Your task to perform on an android device: Open calendar and show me the second week of next month Image 0: 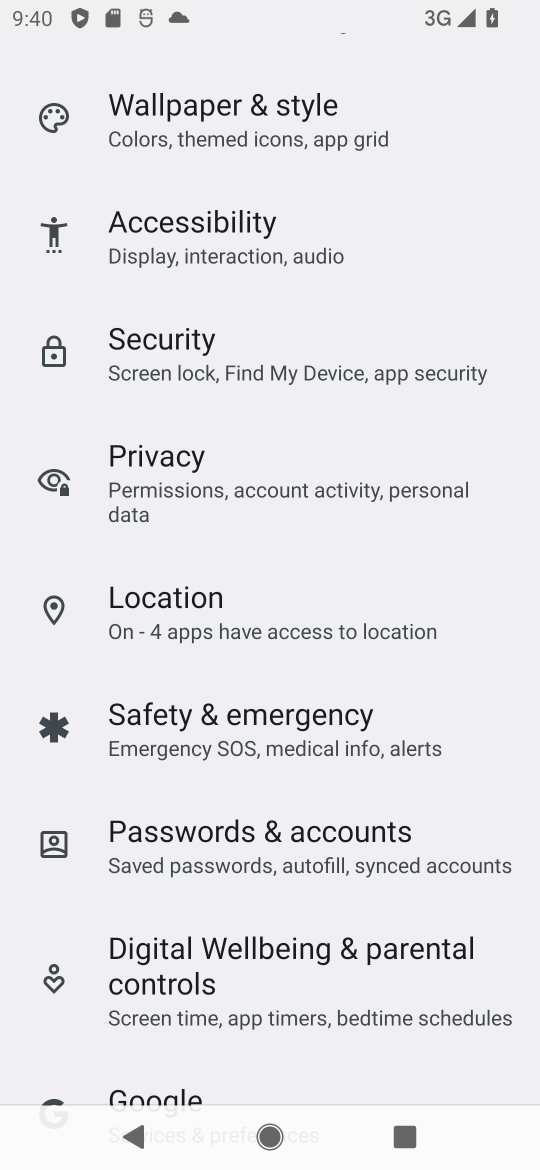
Step 0: press home button
Your task to perform on an android device: Open calendar and show me the second week of next month Image 1: 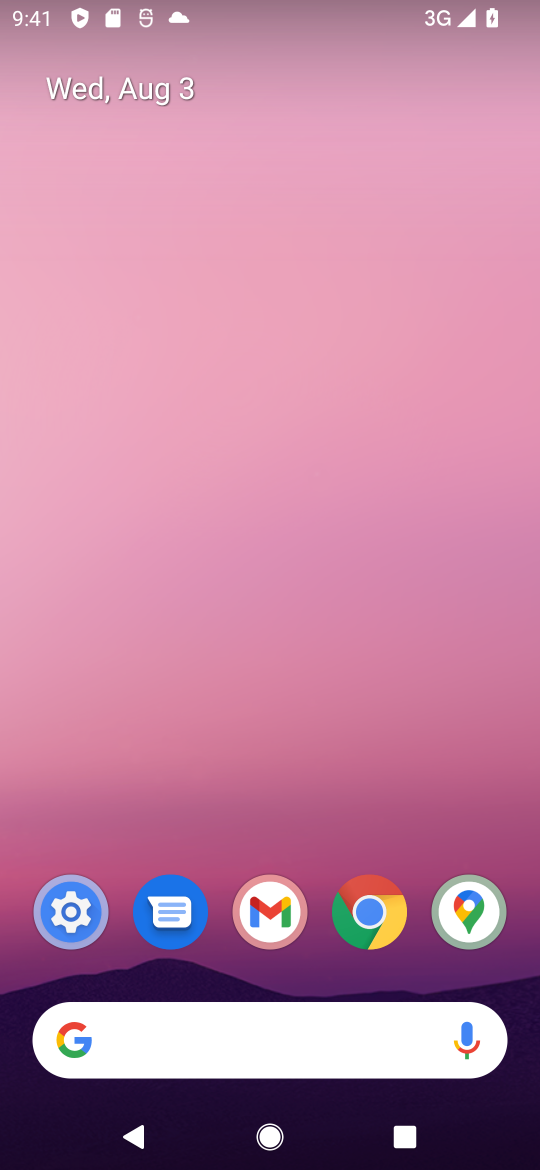
Step 1: drag from (281, 720) to (68, 32)
Your task to perform on an android device: Open calendar and show me the second week of next month Image 2: 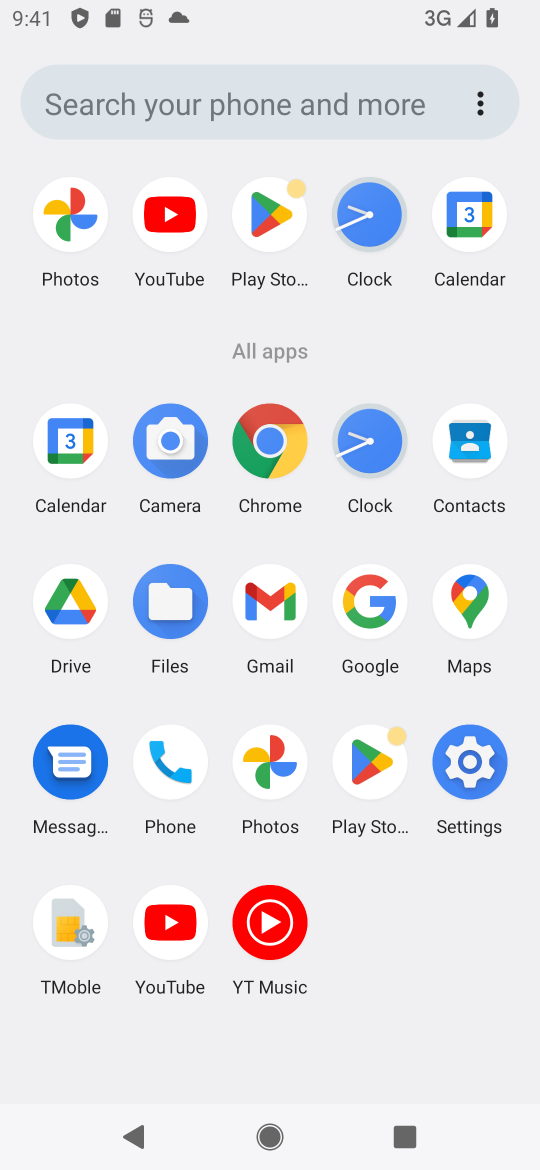
Step 2: click (450, 219)
Your task to perform on an android device: Open calendar and show me the second week of next month Image 3: 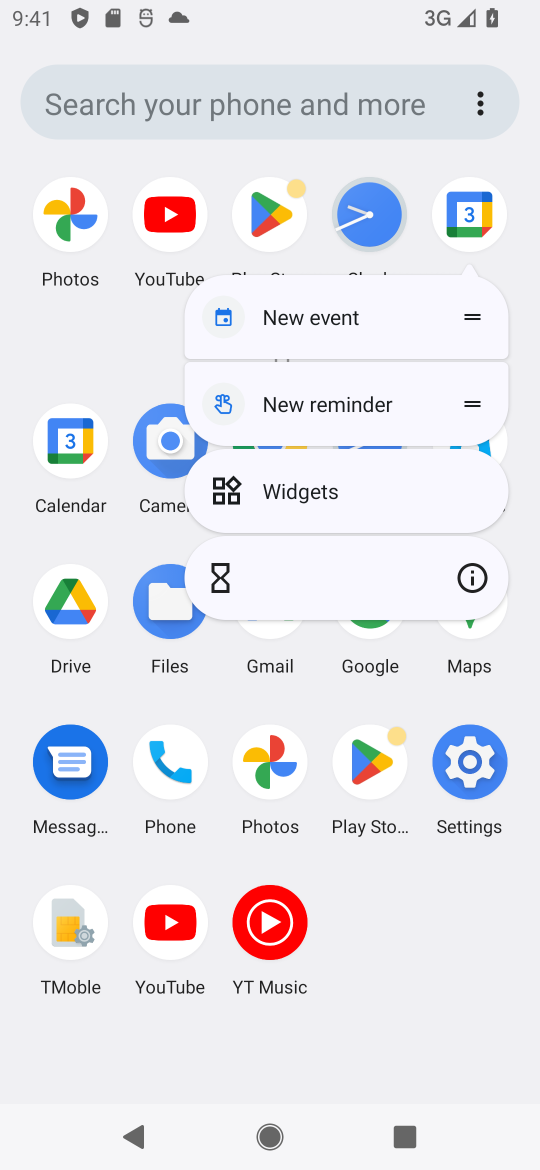
Step 3: click (477, 220)
Your task to perform on an android device: Open calendar and show me the second week of next month Image 4: 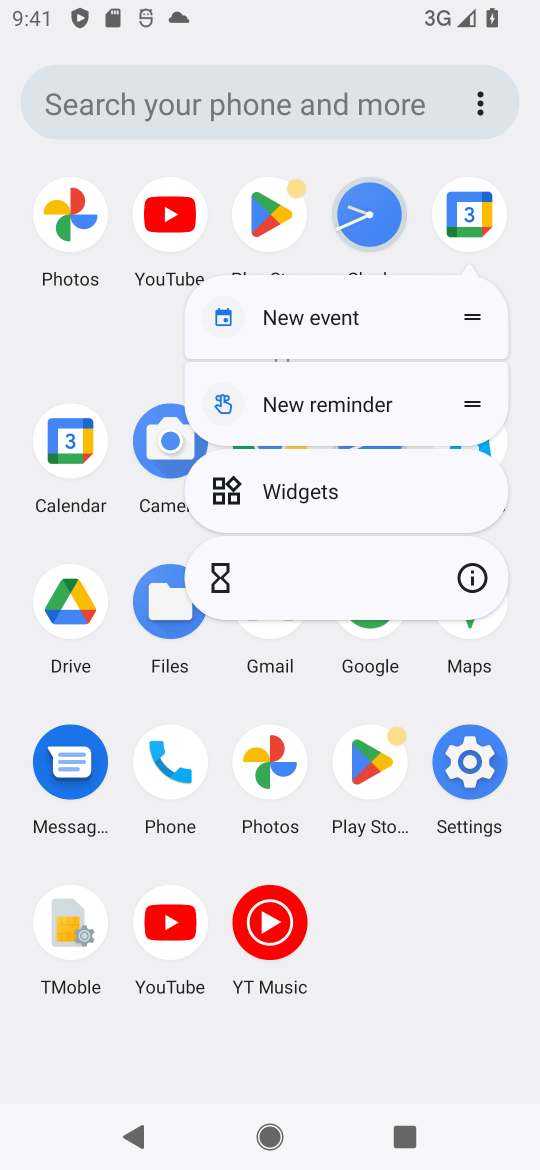
Step 4: click (477, 220)
Your task to perform on an android device: Open calendar and show me the second week of next month Image 5: 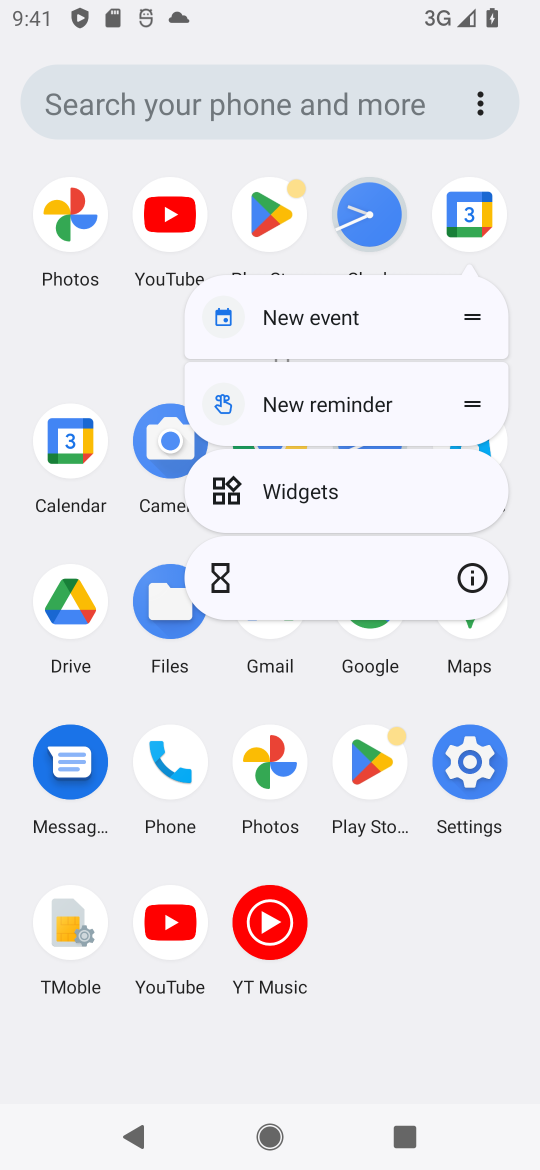
Step 5: click (478, 218)
Your task to perform on an android device: Open calendar and show me the second week of next month Image 6: 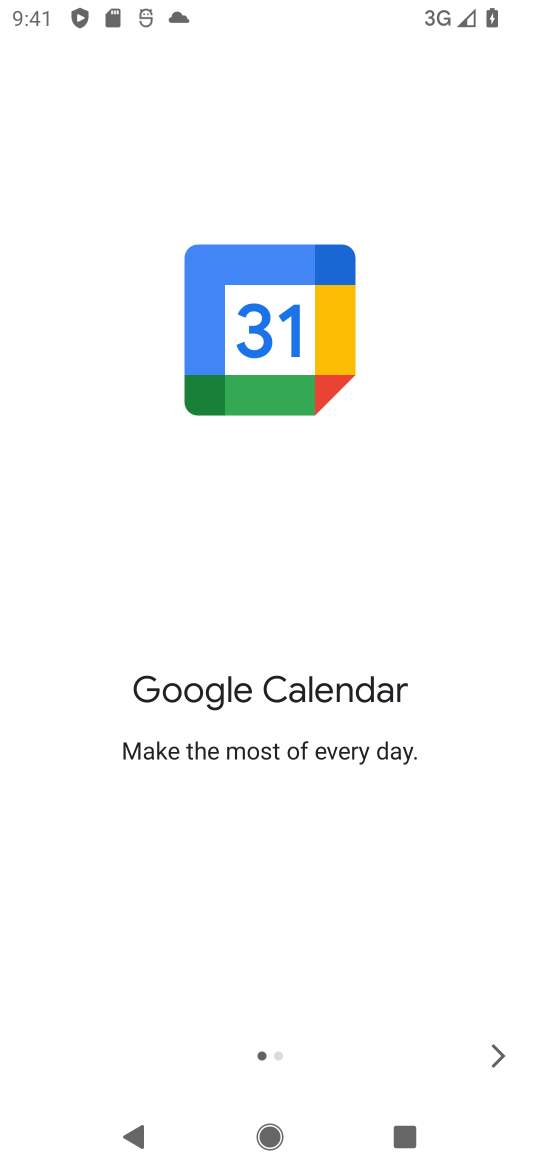
Step 6: click (511, 1071)
Your task to perform on an android device: Open calendar and show me the second week of next month Image 7: 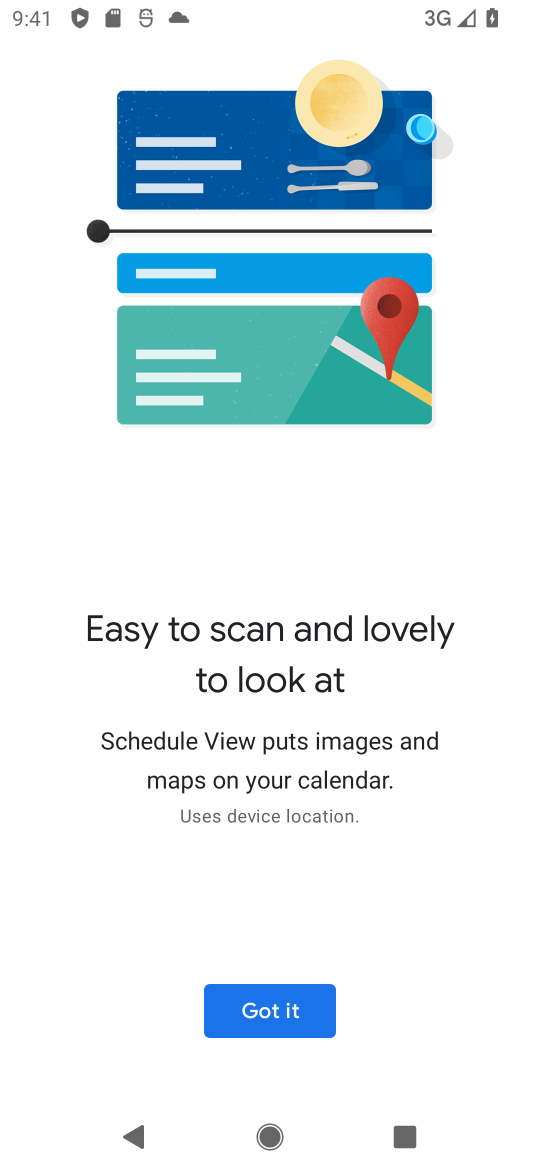
Step 7: click (295, 988)
Your task to perform on an android device: Open calendar and show me the second week of next month Image 8: 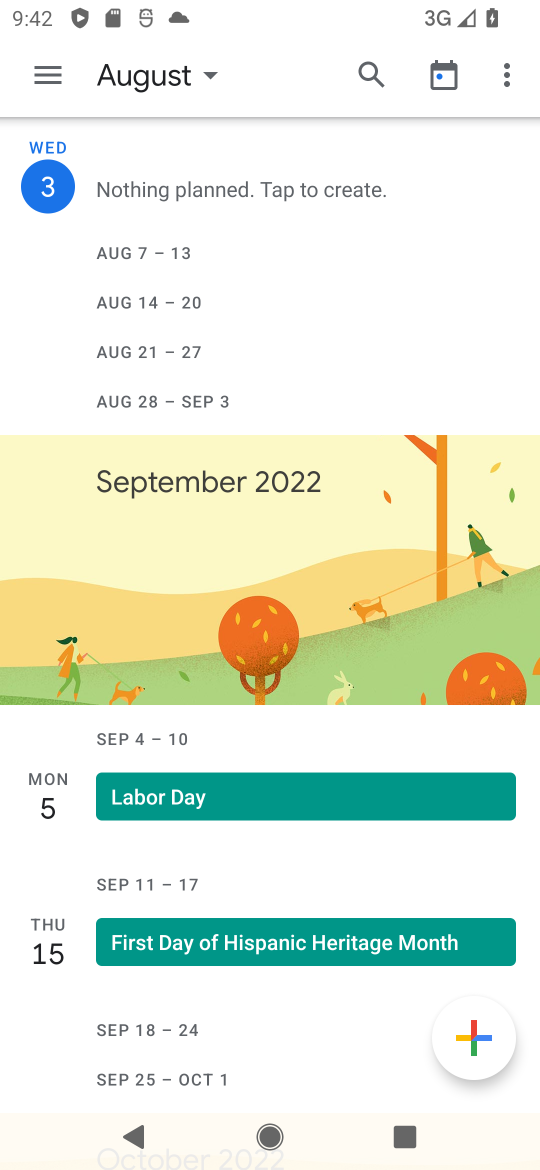
Step 8: click (171, 87)
Your task to perform on an android device: Open calendar and show me the second week of next month Image 9: 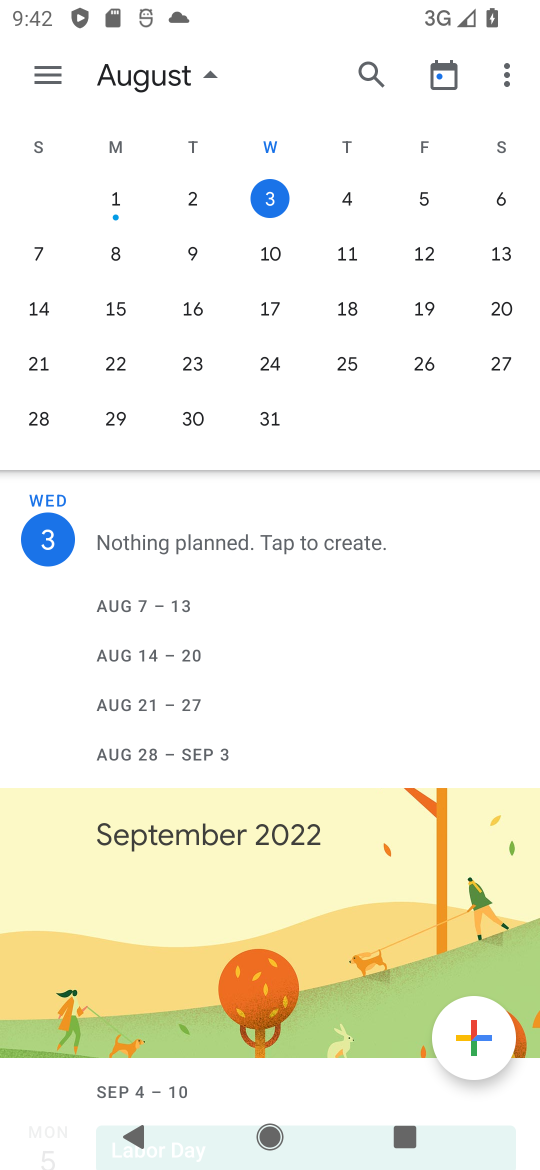
Step 9: drag from (424, 301) to (14, 353)
Your task to perform on an android device: Open calendar and show me the second week of next month Image 10: 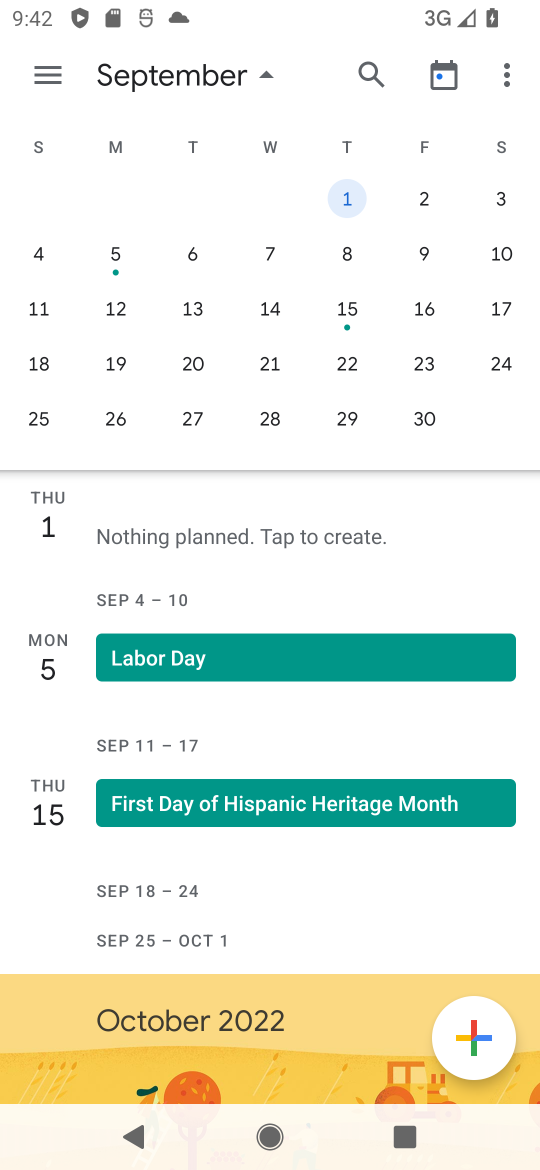
Step 10: click (257, 314)
Your task to perform on an android device: Open calendar and show me the second week of next month Image 11: 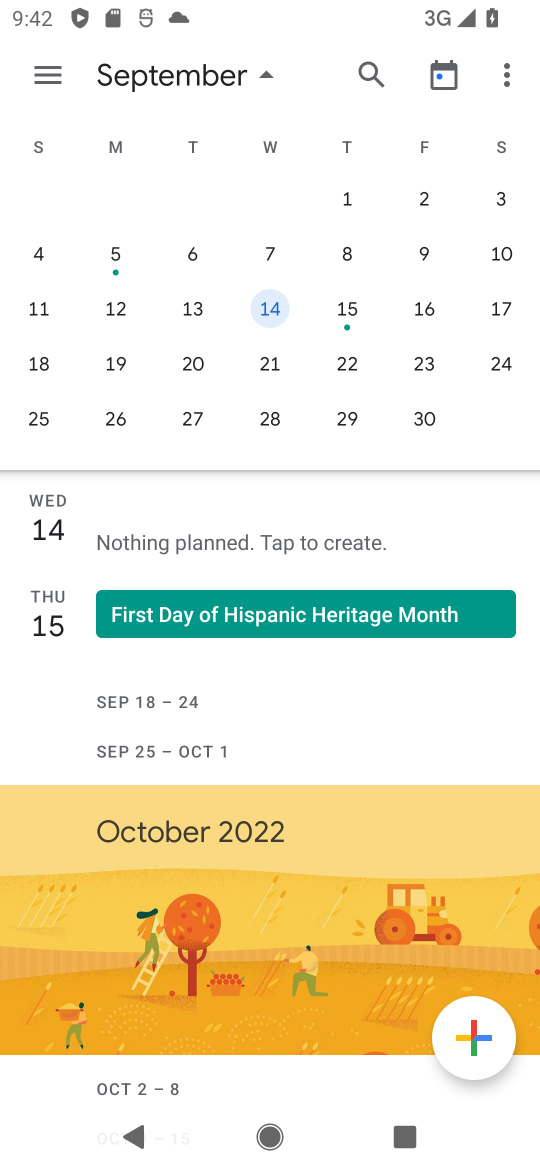
Step 11: task complete